Your task to perform on an android device: Is it going to rain today? Image 0: 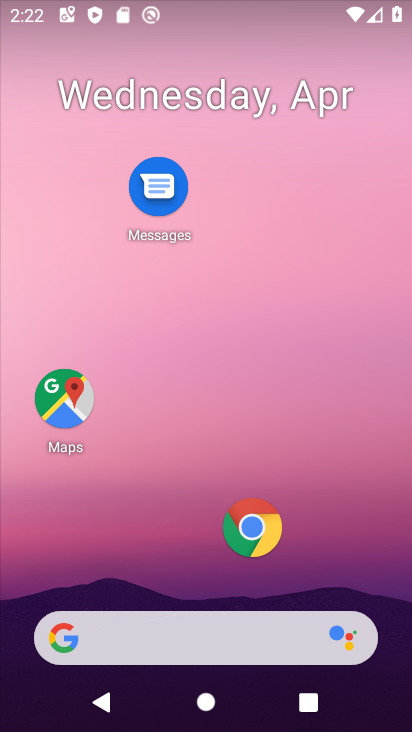
Step 0: click (248, 531)
Your task to perform on an android device: Is it going to rain today? Image 1: 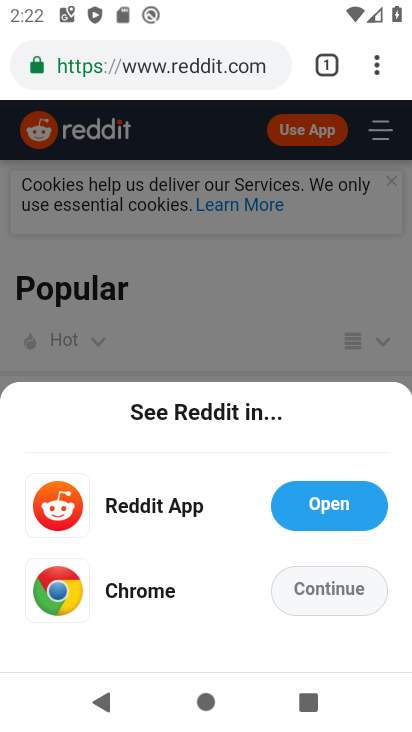
Step 1: click (143, 77)
Your task to perform on an android device: Is it going to rain today? Image 2: 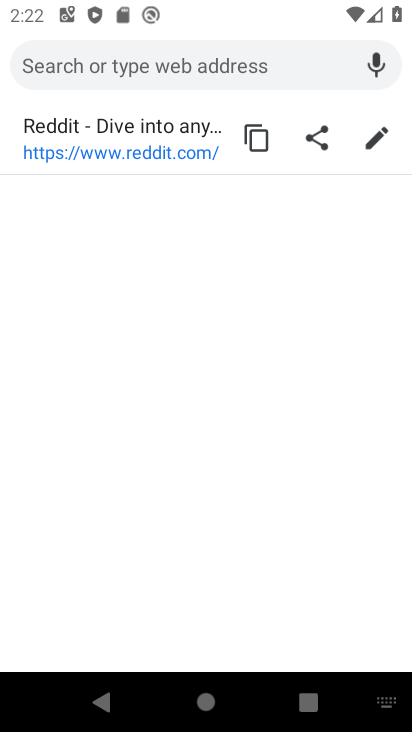
Step 2: type "is it going to rain today?"
Your task to perform on an android device: Is it going to rain today? Image 3: 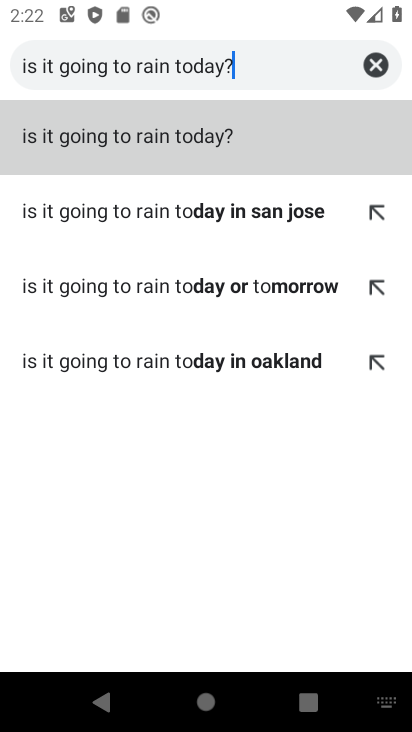
Step 3: click (177, 158)
Your task to perform on an android device: Is it going to rain today? Image 4: 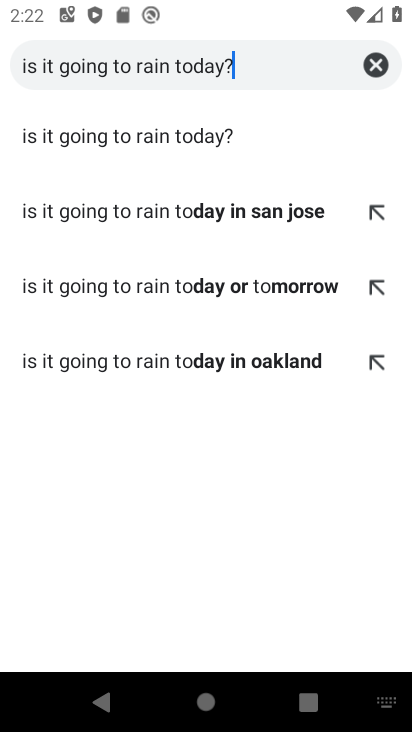
Step 4: click (144, 134)
Your task to perform on an android device: Is it going to rain today? Image 5: 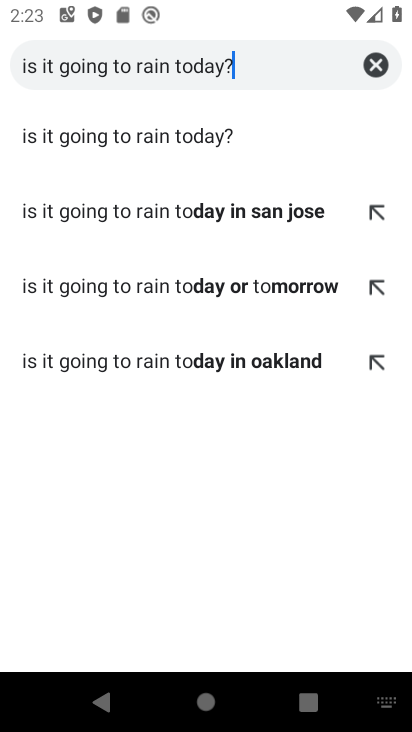
Step 5: click (196, 134)
Your task to perform on an android device: Is it going to rain today? Image 6: 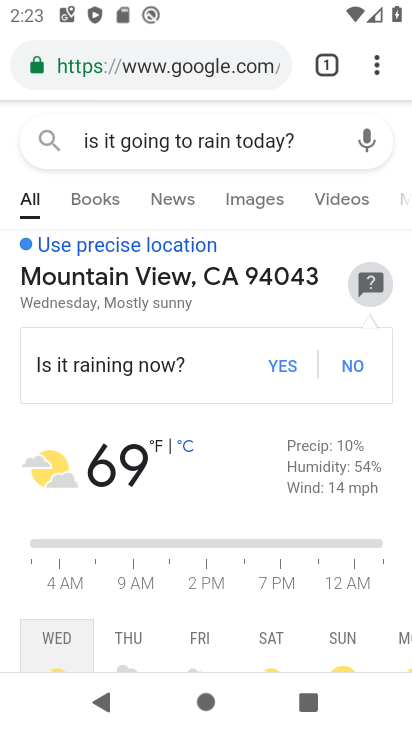
Step 6: task complete